Your task to perform on an android device: Is it going to rain tomorrow? Image 0: 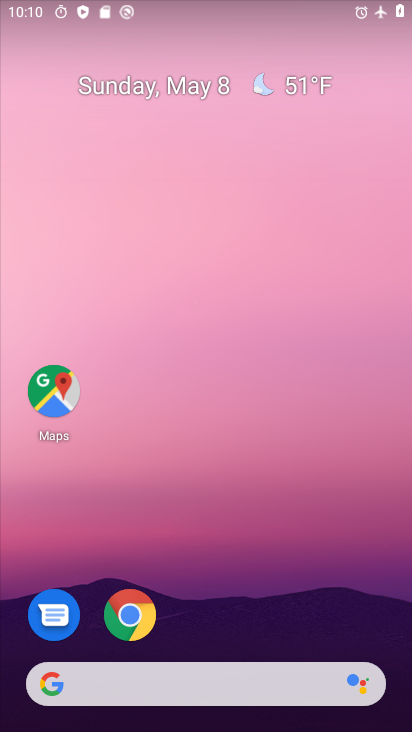
Step 0: drag from (235, 623) to (261, 164)
Your task to perform on an android device: Is it going to rain tomorrow? Image 1: 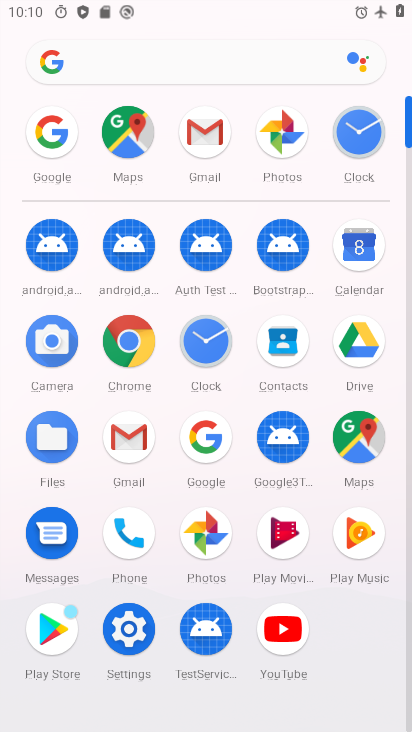
Step 1: click (197, 430)
Your task to perform on an android device: Is it going to rain tomorrow? Image 2: 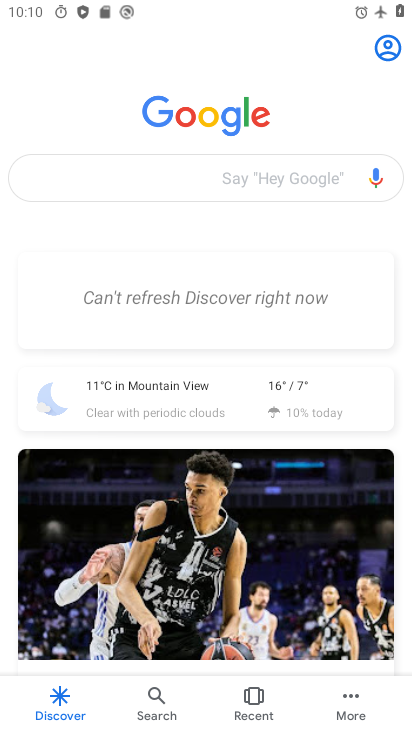
Step 2: click (189, 379)
Your task to perform on an android device: Is it going to rain tomorrow? Image 3: 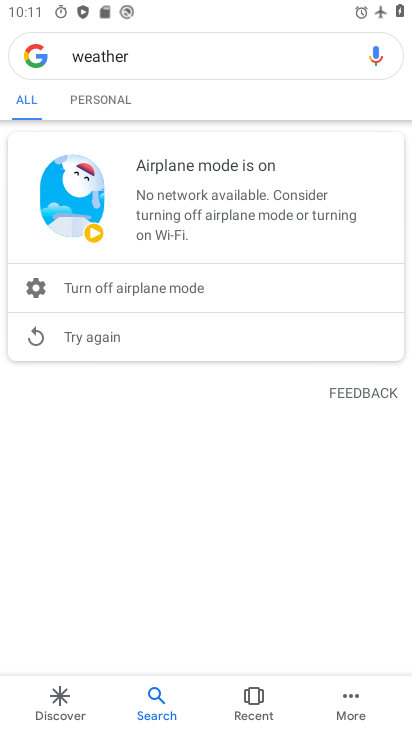
Step 3: task complete